Your task to perform on an android device: Go to calendar. Show me events next week Image 0: 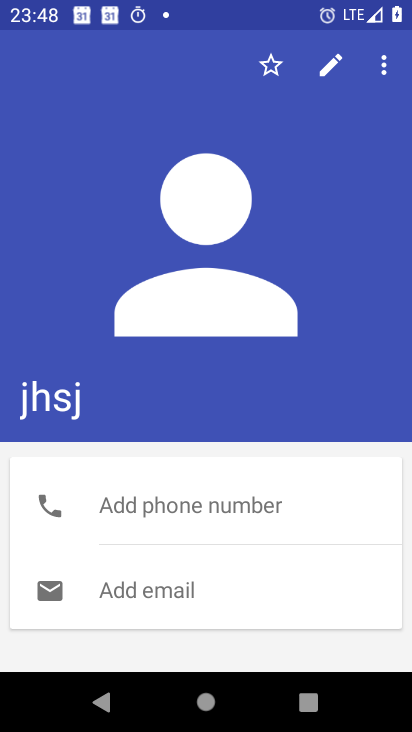
Step 0: press home button
Your task to perform on an android device: Go to calendar. Show me events next week Image 1: 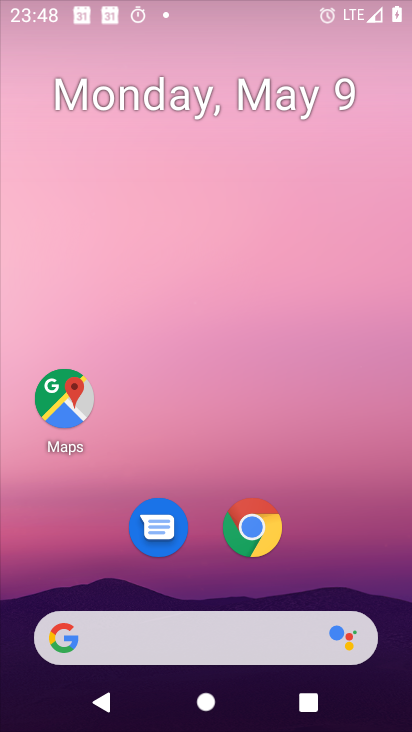
Step 1: drag from (215, 581) to (205, 45)
Your task to perform on an android device: Go to calendar. Show me events next week Image 2: 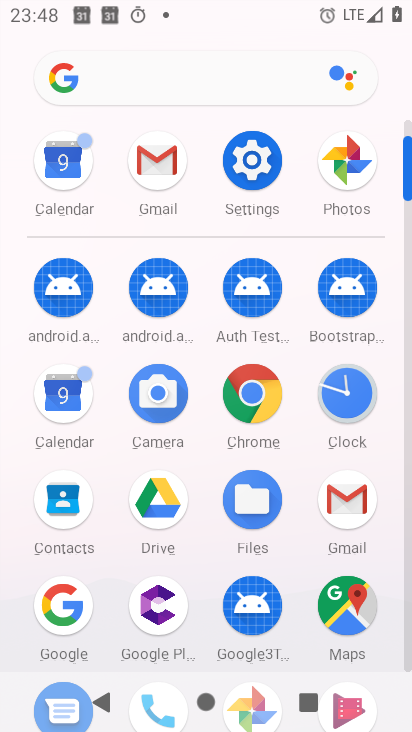
Step 2: click (64, 396)
Your task to perform on an android device: Go to calendar. Show me events next week Image 3: 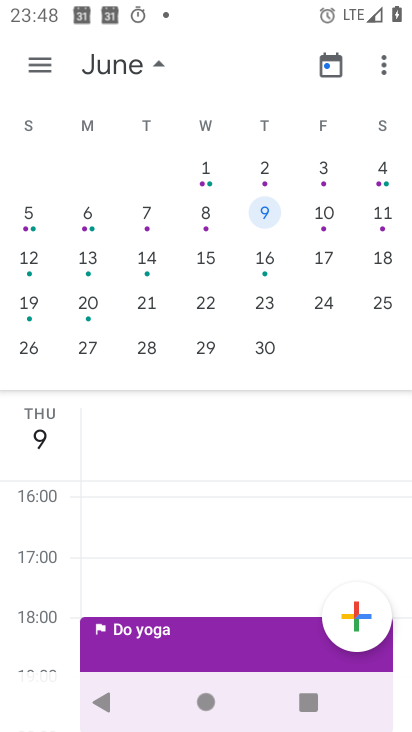
Step 3: drag from (141, 373) to (400, 356)
Your task to perform on an android device: Go to calendar. Show me events next week Image 4: 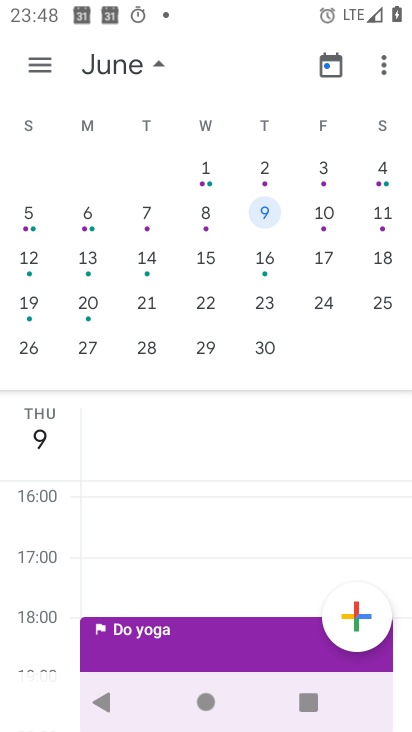
Step 4: drag from (27, 370) to (398, 317)
Your task to perform on an android device: Go to calendar. Show me events next week Image 5: 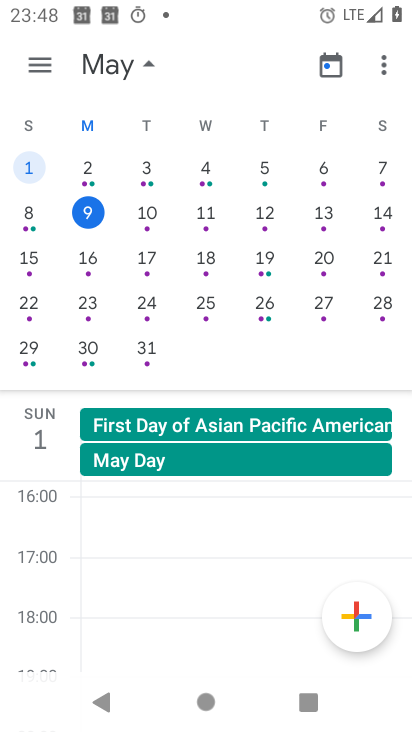
Step 5: click (90, 261)
Your task to perform on an android device: Go to calendar. Show me events next week Image 6: 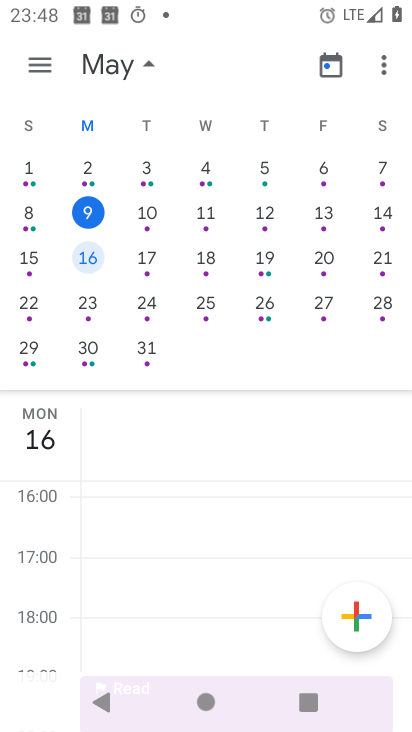
Step 6: task complete